Your task to perform on an android device: When is my next appointment? Image 0: 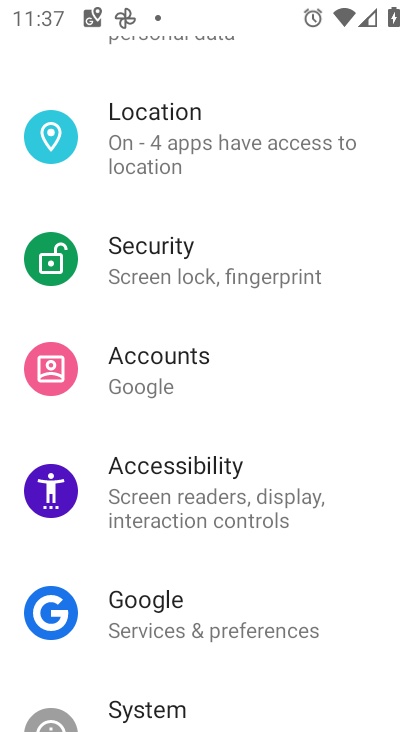
Step 0: press home button
Your task to perform on an android device: When is my next appointment? Image 1: 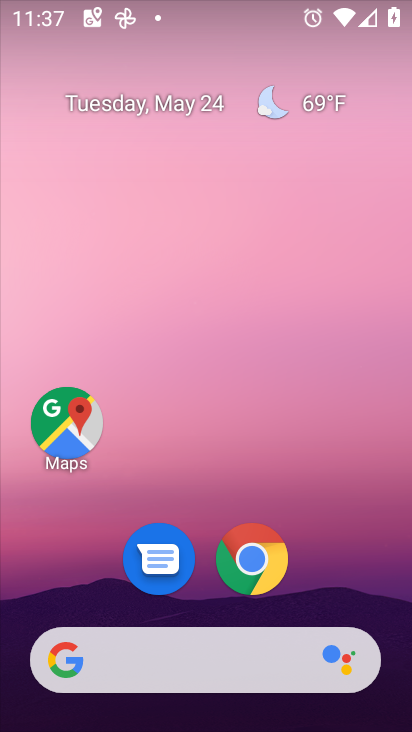
Step 1: drag from (380, 594) to (210, 78)
Your task to perform on an android device: When is my next appointment? Image 2: 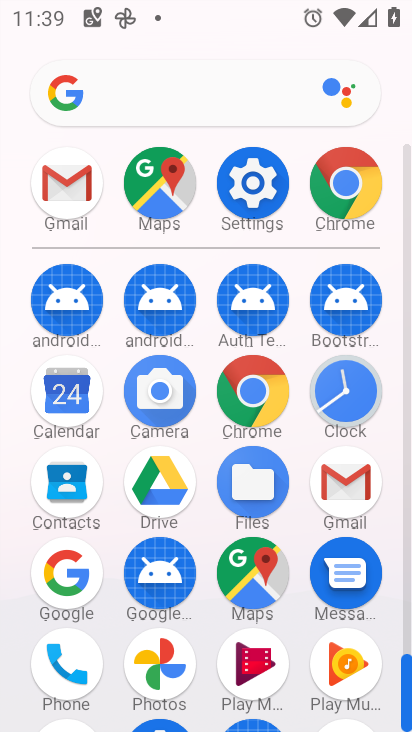
Step 2: click (87, 383)
Your task to perform on an android device: When is my next appointment? Image 3: 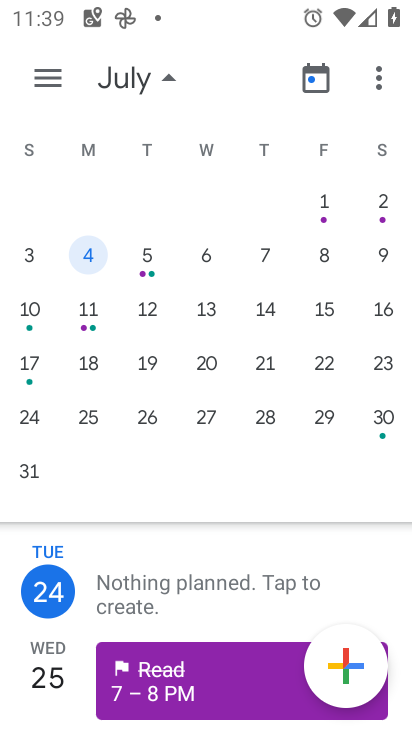
Step 3: task complete